Your task to perform on an android device: open chrome privacy settings Image 0: 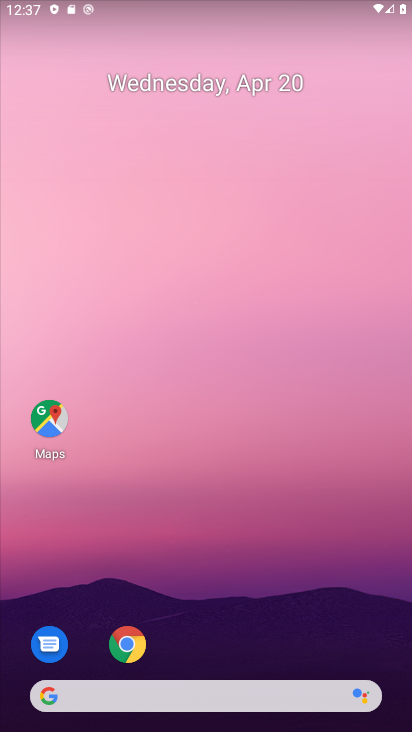
Step 0: click (132, 638)
Your task to perform on an android device: open chrome privacy settings Image 1: 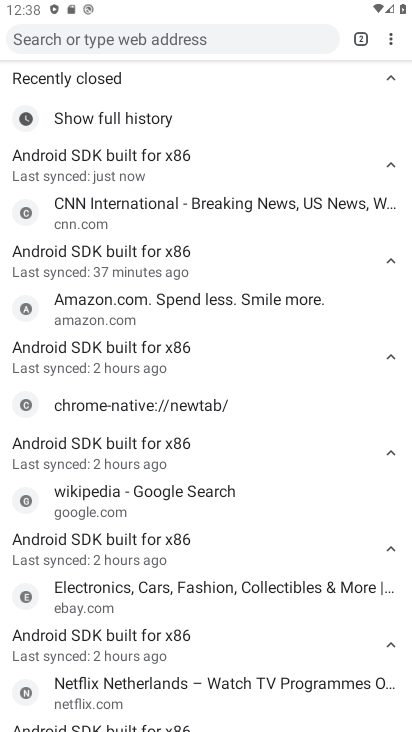
Step 1: press back button
Your task to perform on an android device: open chrome privacy settings Image 2: 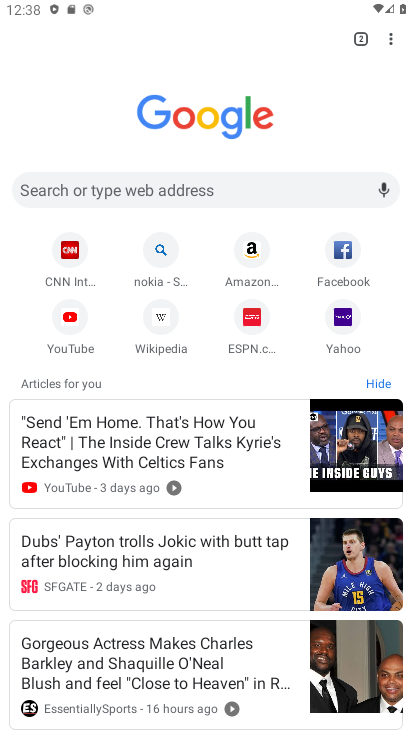
Step 2: click (382, 34)
Your task to perform on an android device: open chrome privacy settings Image 3: 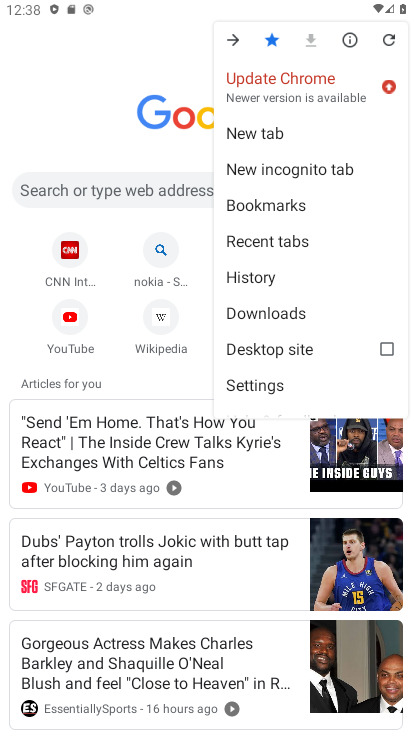
Step 3: click (285, 380)
Your task to perform on an android device: open chrome privacy settings Image 4: 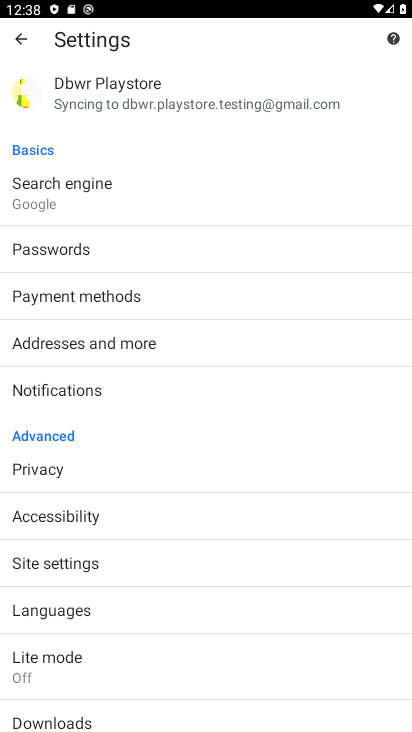
Step 4: click (198, 459)
Your task to perform on an android device: open chrome privacy settings Image 5: 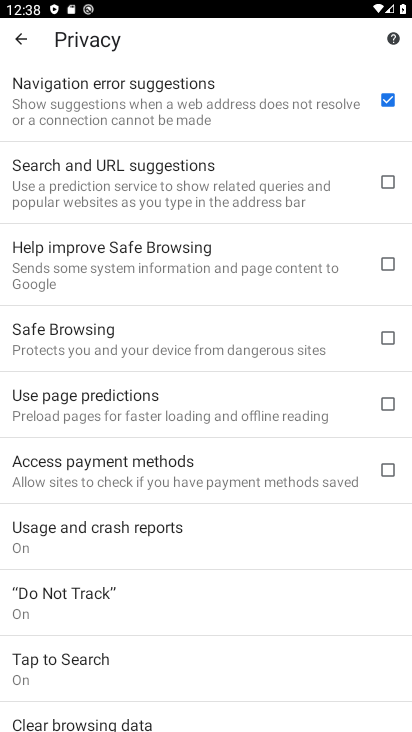
Step 5: task complete